Your task to perform on an android device: delete a single message in the gmail app Image 0: 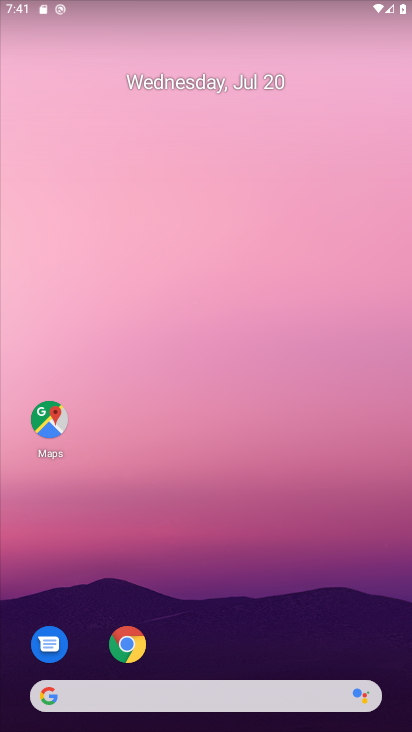
Step 0: drag from (182, 669) to (184, 413)
Your task to perform on an android device: delete a single message in the gmail app Image 1: 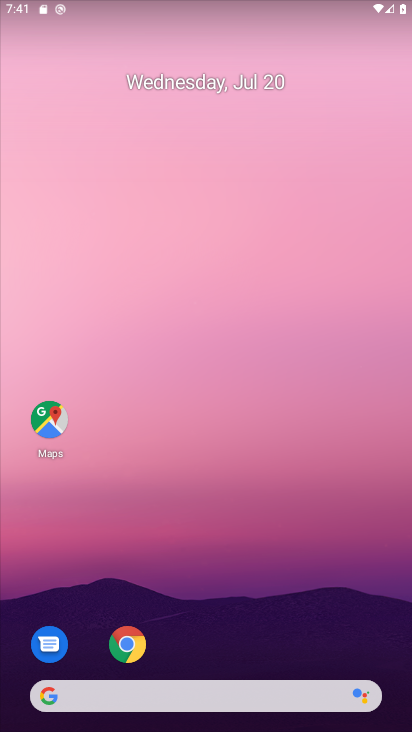
Step 1: drag from (183, 670) to (183, 107)
Your task to perform on an android device: delete a single message in the gmail app Image 2: 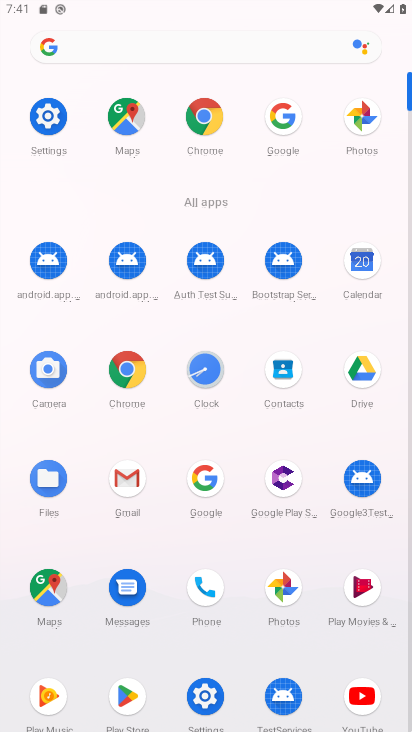
Step 2: click (119, 482)
Your task to perform on an android device: delete a single message in the gmail app Image 3: 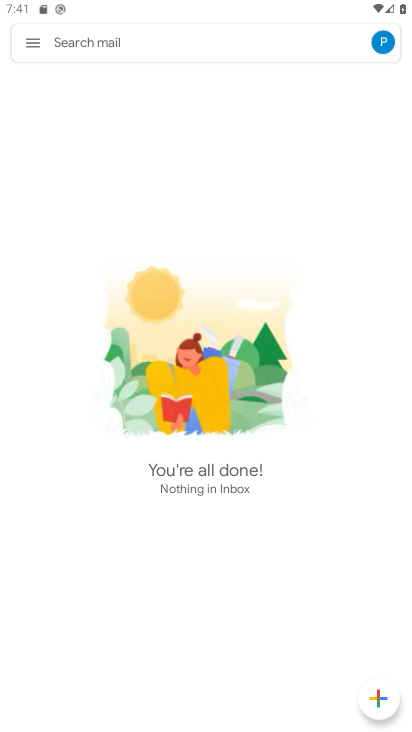
Step 3: task complete